Your task to perform on an android device: turn on showing notifications on the lock screen Image 0: 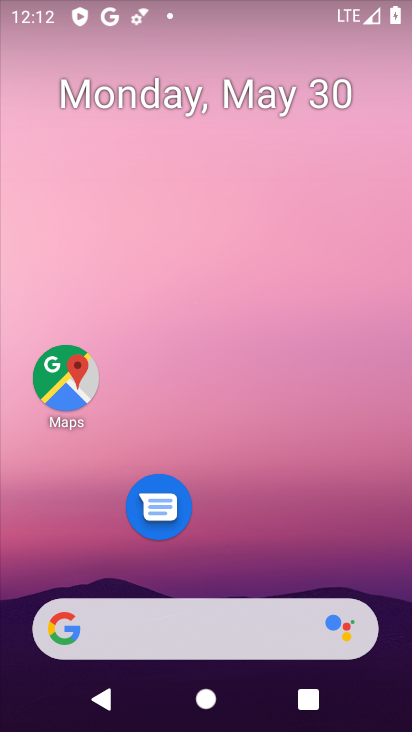
Step 0: drag from (256, 563) to (258, 75)
Your task to perform on an android device: turn on showing notifications on the lock screen Image 1: 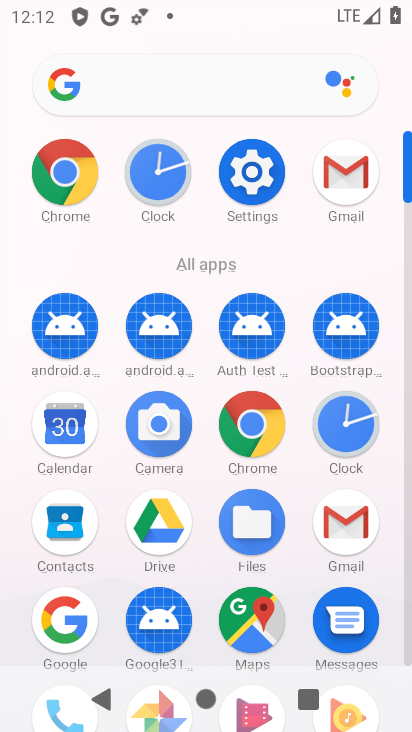
Step 1: click (244, 177)
Your task to perform on an android device: turn on showing notifications on the lock screen Image 2: 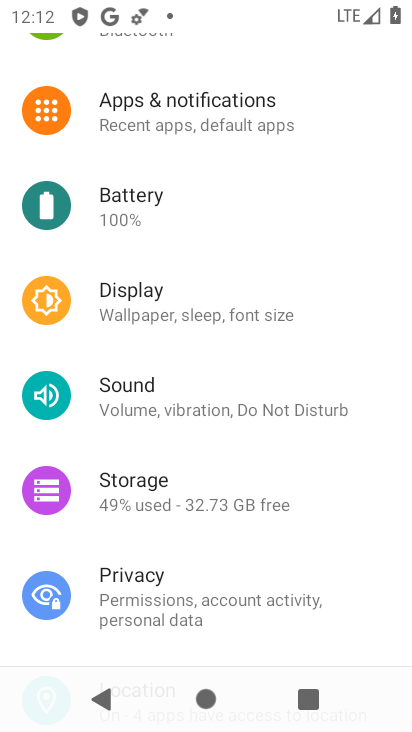
Step 2: click (168, 119)
Your task to perform on an android device: turn on showing notifications on the lock screen Image 3: 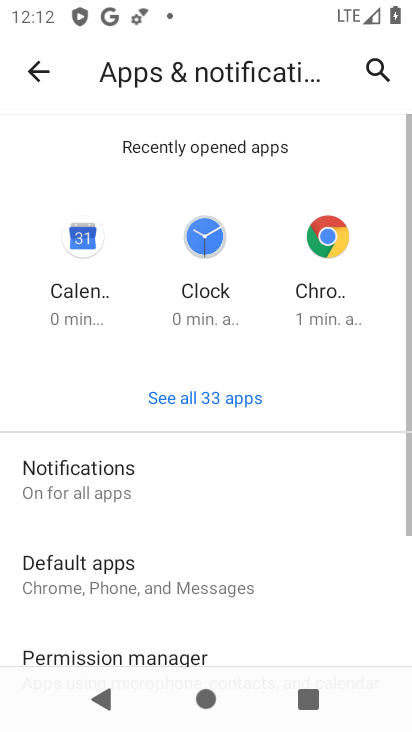
Step 3: click (138, 468)
Your task to perform on an android device: turn on showing notifications on the lock screen Image 4: 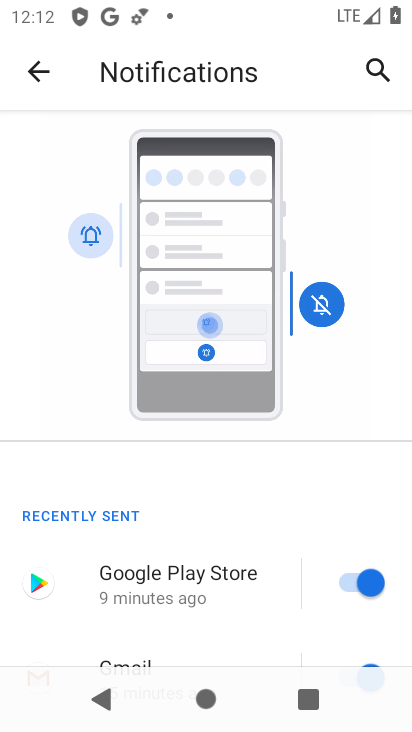
Step 4: drag from (229, 475) to (350, 63)
Your task to perform on an android device: turn on showing notifications on the lock screen Image 5: 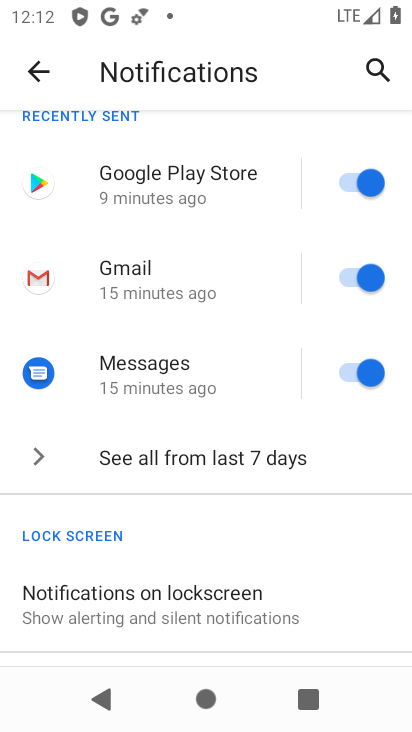
Step 5: click (211, 597)
Your task to perform on an android device: turn on showing notifications on the lock screen Image 6: 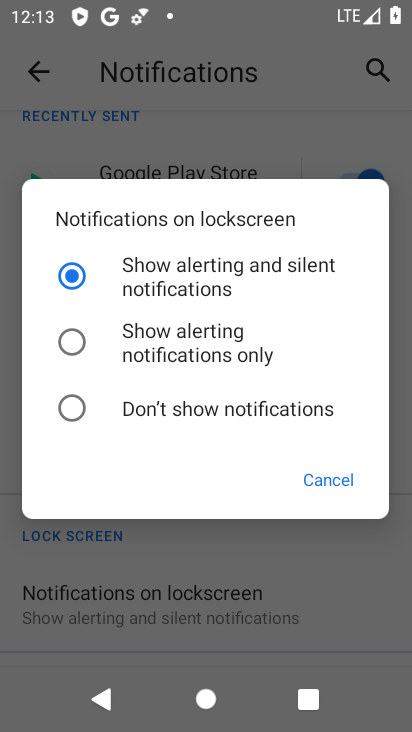
Step 6: click (180, 348)
Your task to perform on an android device: turn on showing notifications on the lock screen Image 7: 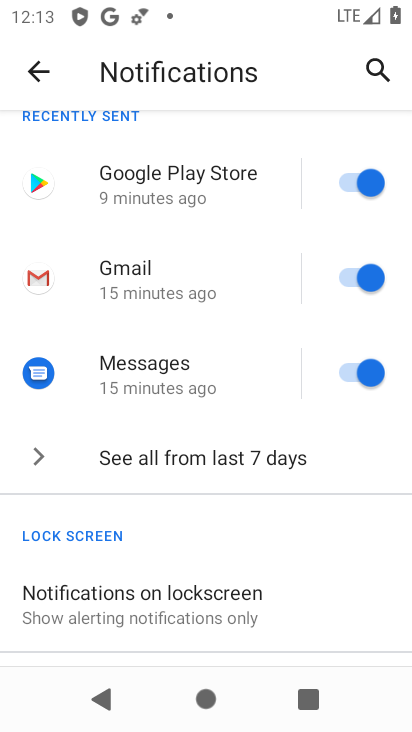
Step 7: task complete